Your task to perform on an android device: turn off location Image 0: 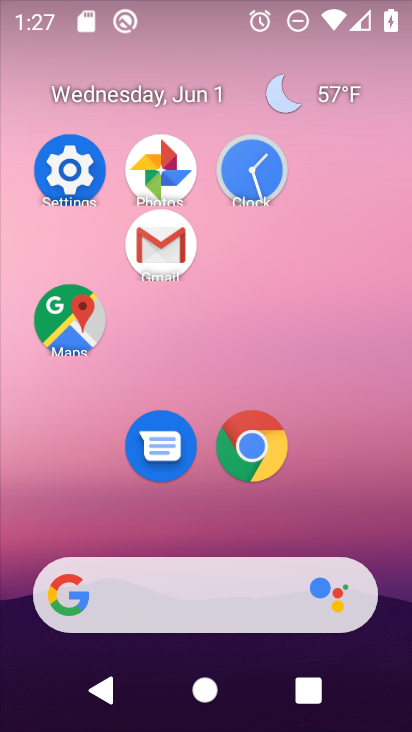
Step 0: click (82, 166)
Your task to perform on an android device: turn off location Image 1: 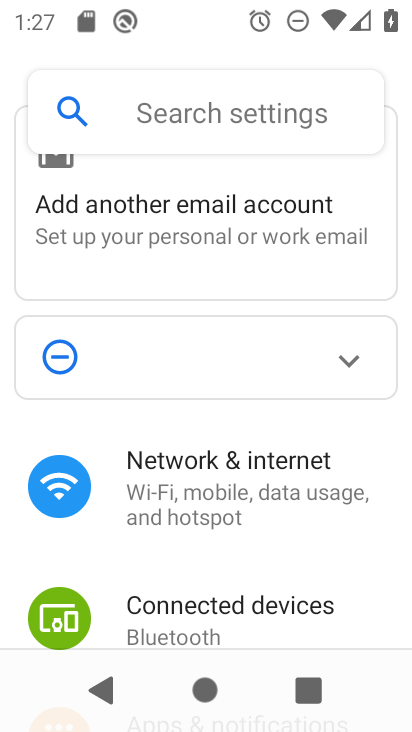
Step 1: drag from (200, 513) to (224, 163)
Your task to perform on an android device: turn off location Image 2: 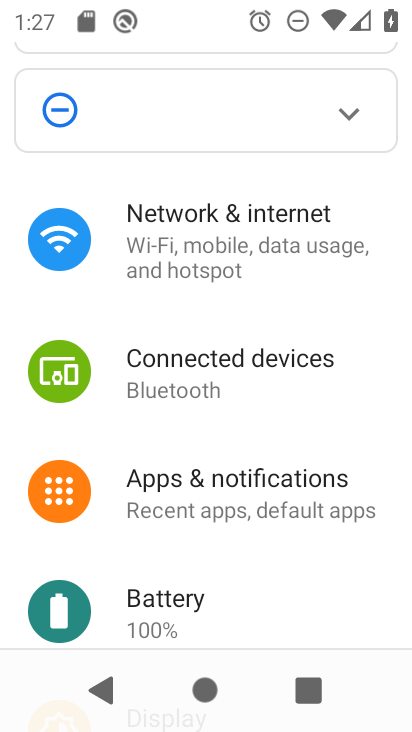
Step 2: drag from (188, 570) to (226, 140)
Your task to perform on an android device: turn off location Image 3: 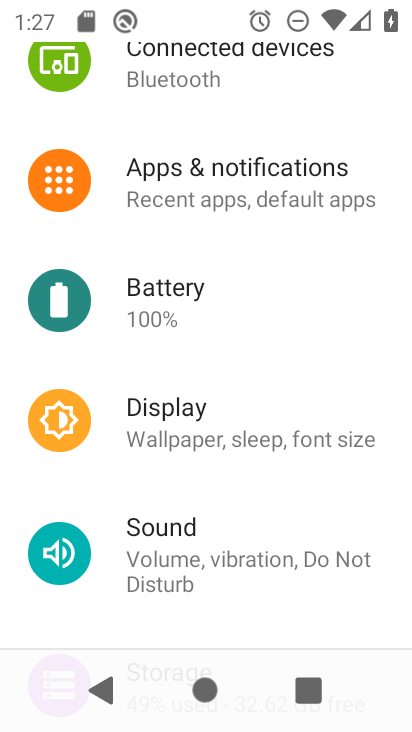
Step 3: drag from (235, 552) to (261, 106)
Your task to perform on an android device: turn off location Image 4: 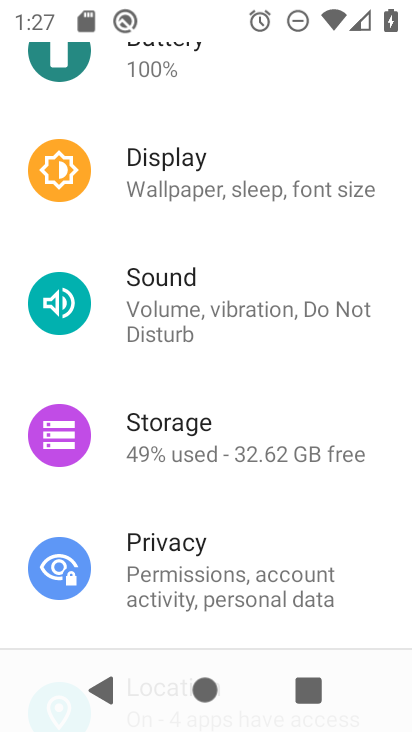
Step 4: drag from (268, 418) to (296, 166)
Your task to perform on an android device: turn off location Image 5: 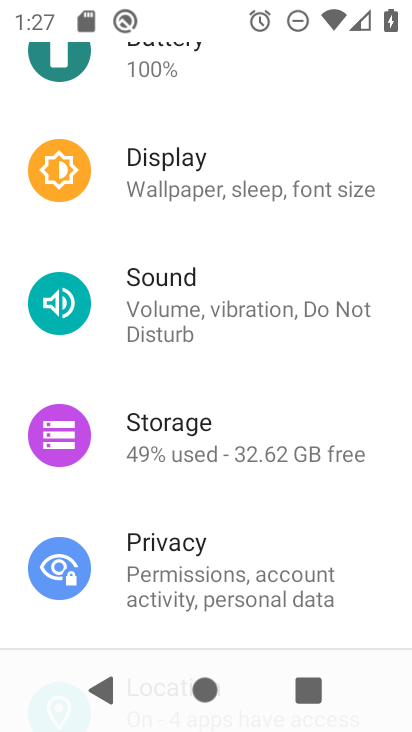
Step 5: drag from (295, 536) to (300, 126)
Your task to perform on an android device: turn off location Image 6: 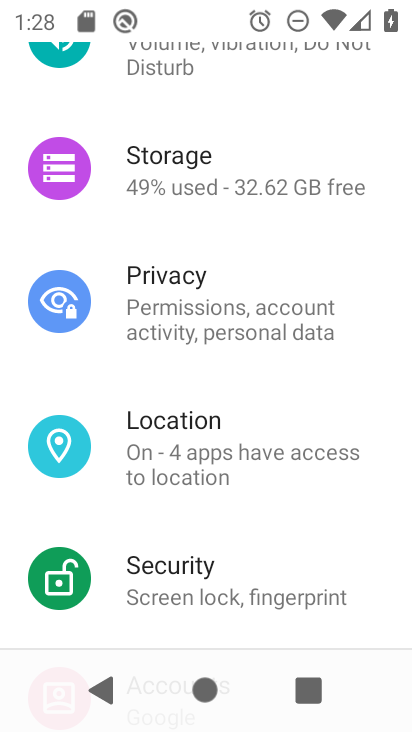
Step 6: click (294, 446)
Your task to perform on an android device: turn off location Image 7: 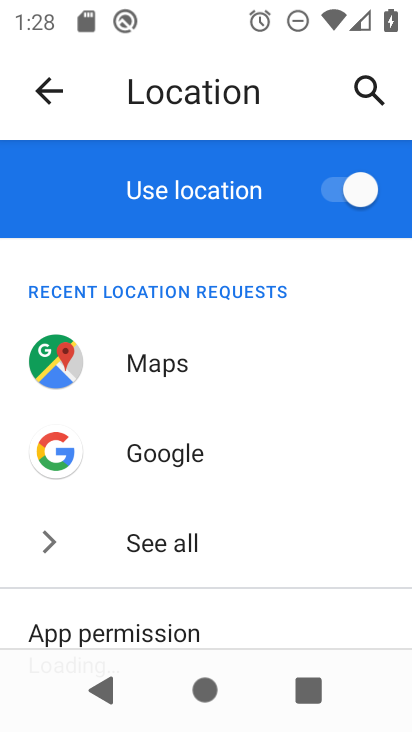
Step 7: click (366, 185)
Your task to perform on an android device: turn off location Image 8: 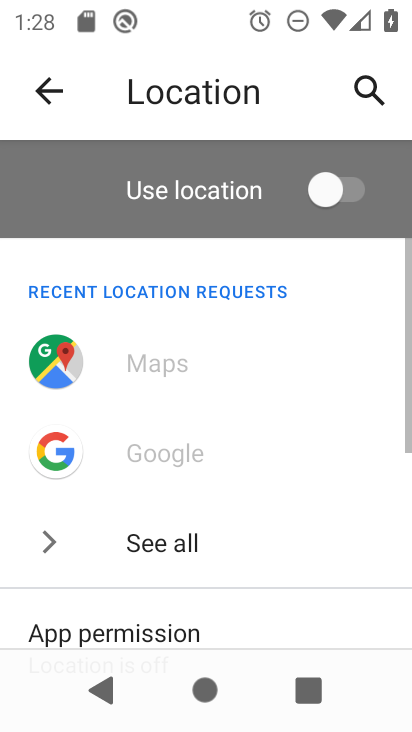
Step 8: task complete